Your task to perform on an android device: What is the news today? Image 0: 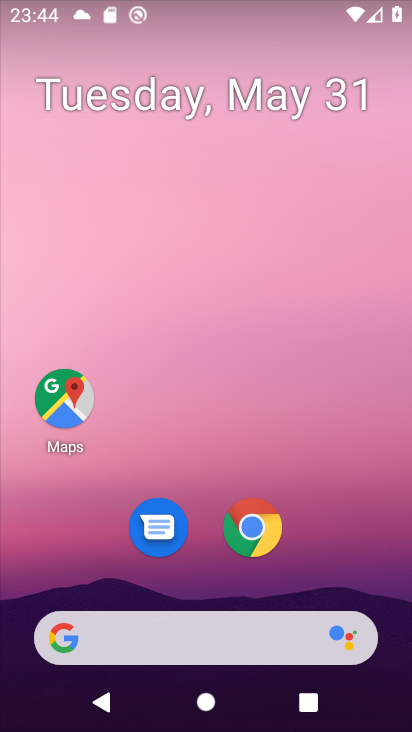
Step 0: drag from (361, 495) to (222, 11)
Your task to perform on an android device: What is the news today? Image 1: 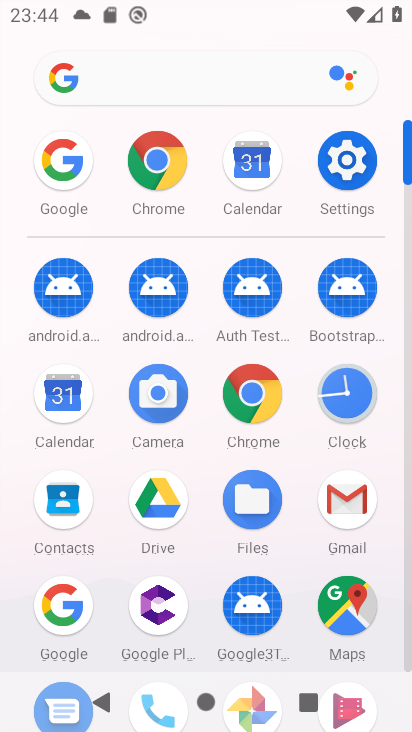
Step 1: click (72, 612)
Your task to perform on an android device: What is the news today? Image 2: 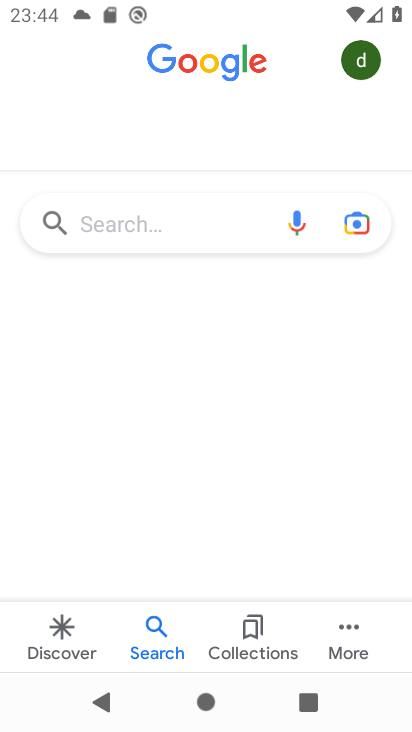
Step 2: click (189, 218)
Your task to perform on an android device: What is the news today? Image 3: 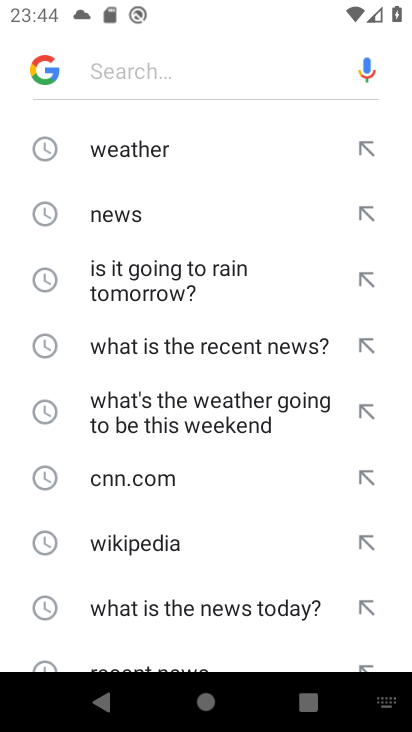
Step 3: click (175, 216)
Your task to perform on an android device: What is the news today? Image 4: 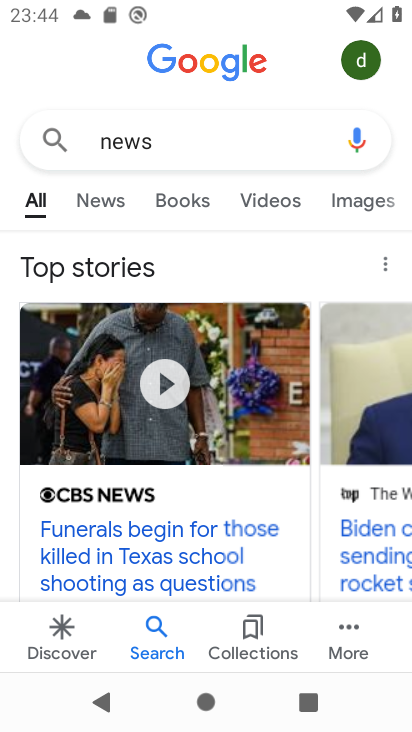
Step 4: task complete